Your task to perform on an android device: set the timer Image 0: 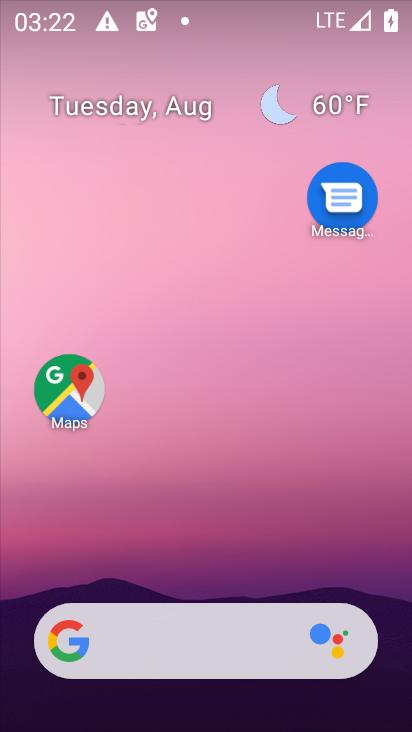
Step 0: drag from (218, 586) to (248, 68)
Your task to perform on an android device: set the timer Image 1: 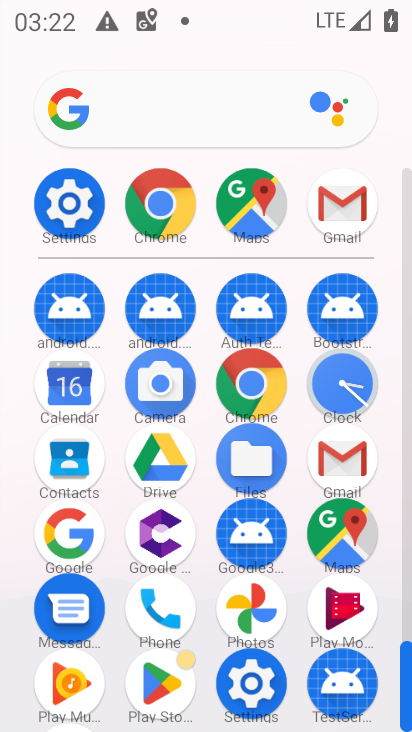
Step 1: click (65, 219)
Your task to perform on an android device: set the timer Image 2: 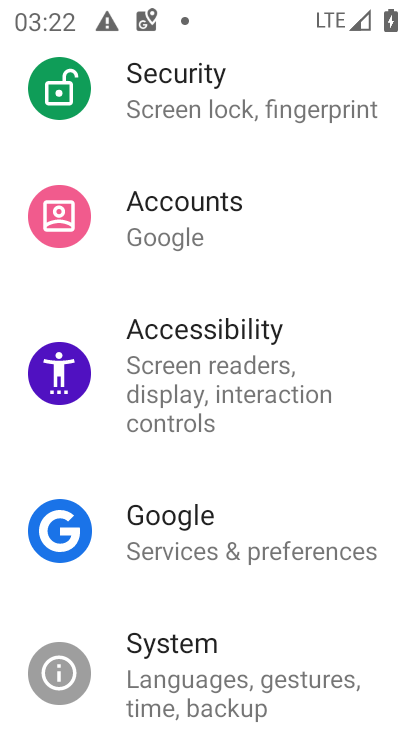
Step 2: press home button
Your task to perform on an android device: set the timer Image 3: 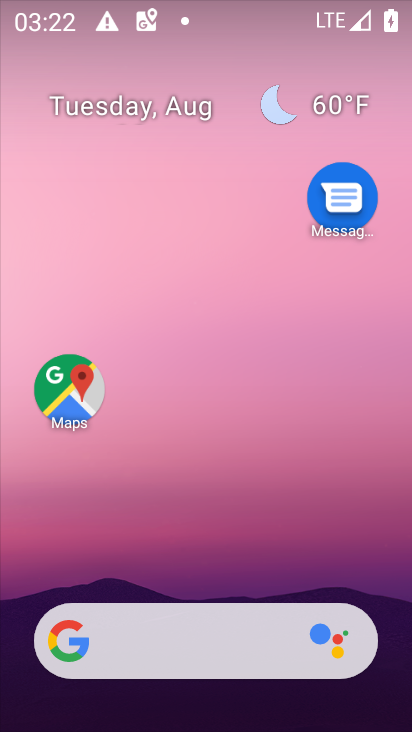
Step 3: drag from (259, 590) to (254, 7)
Your task to perform on an android device: set the timer Image 4: 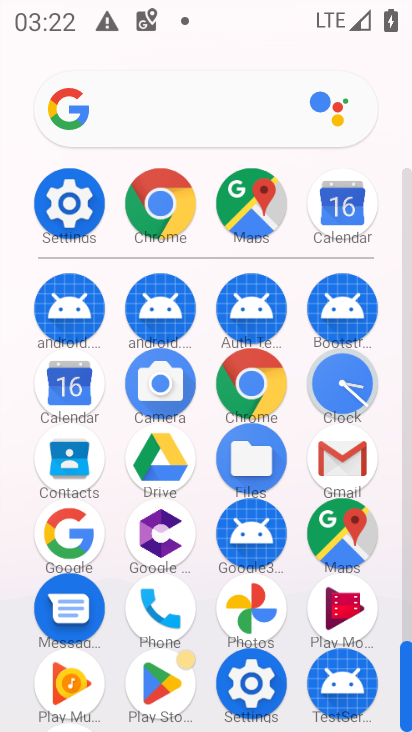
Step 4: click (327, 360)
Your task to perform on an android device: set the timer Image 5: 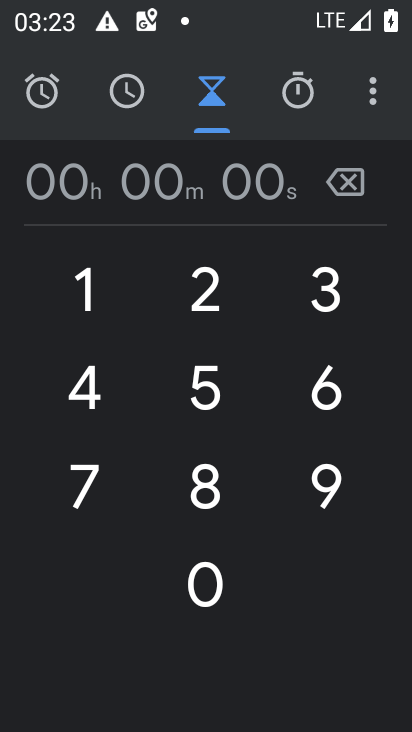
Step 5: task complete